Your task to perform on an android device: snooze an email in the gmail app Image 0: 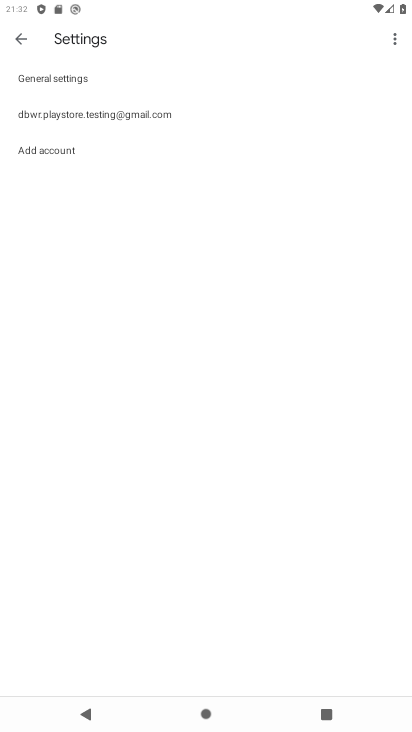
Step 0: press home button
Your task to perform on an android device: snooze an email in the gmail app Image 1: 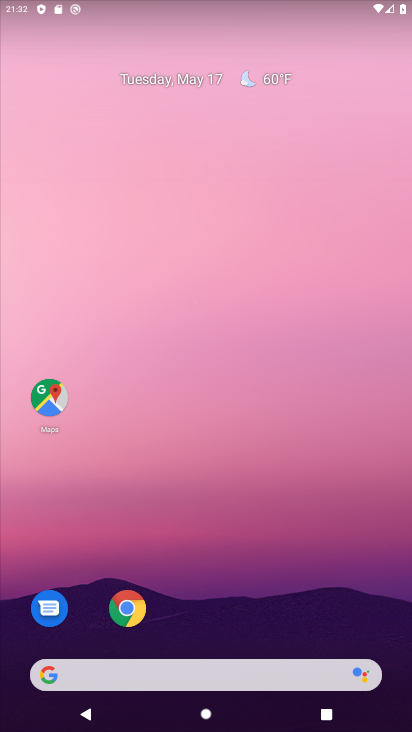
Step 1: drag from (224, 533) to (264, 17)
Your task to perform on an android device: snooze an email in the gmail app Image 2: 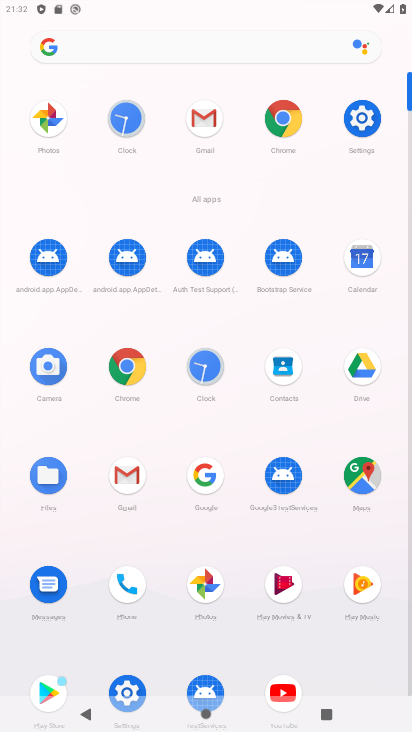
Step 2: click (125, 481)
Your task to perform on an android device: snooze an email in the gmail app Image 3: 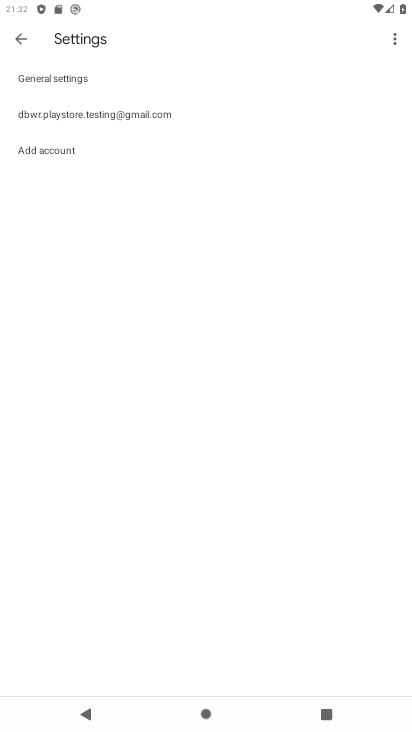
Step 3: click (16, 35)
Your task to perform on an android device: snooze an email in the gmail app Image 4: 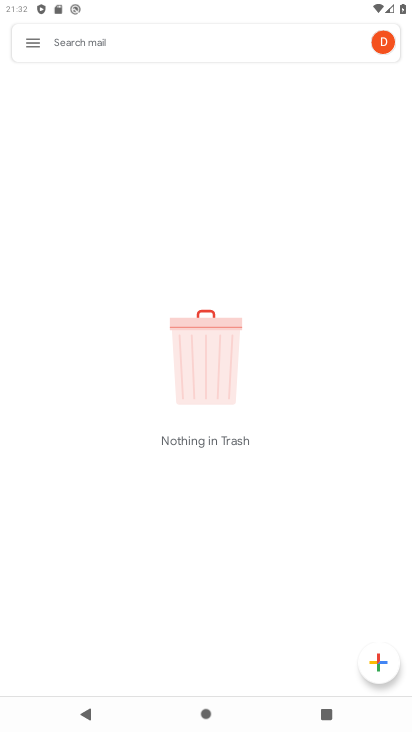
Step 4: click (30, 40)
Your task to perform on an android device: snooze an email in the gmail app Image 5: 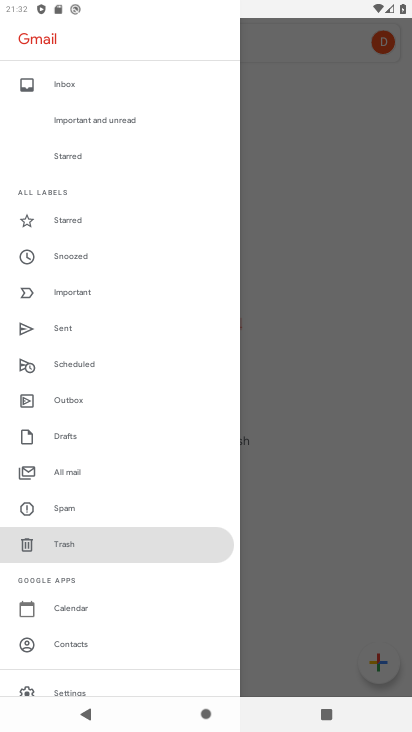
Step 5: click (70, 250)
Your task to perform on an android device: snooze an email in the gmail app Image 6: 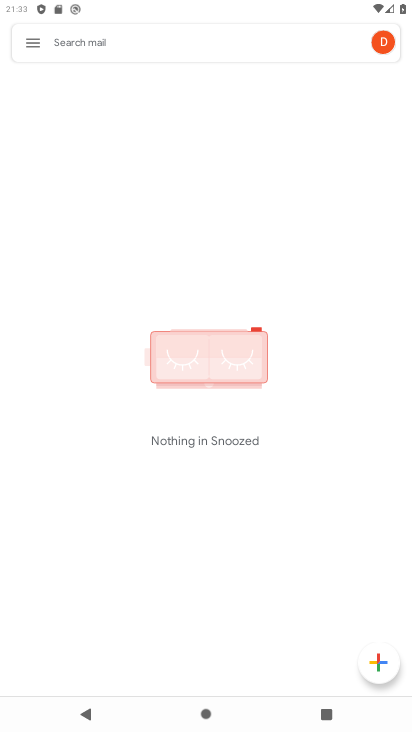
Step 6: click (23, 30)
Your task to perform on an android device: snooze an email in the gmail app Image 7: 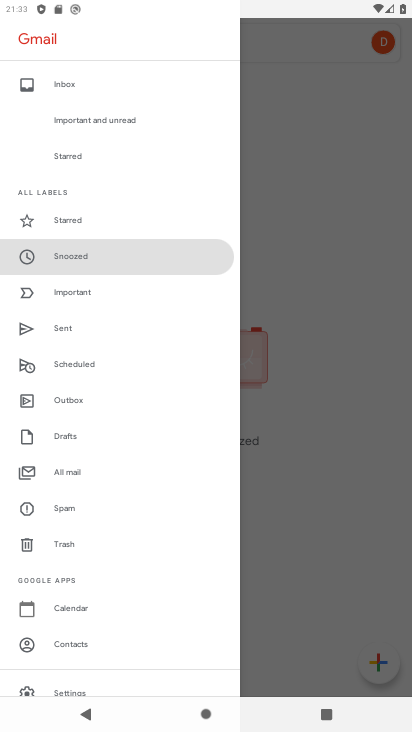
Step 7: click (117, 462)
Your task to perform on an android device: snooze an email in the gmail app Image 8: 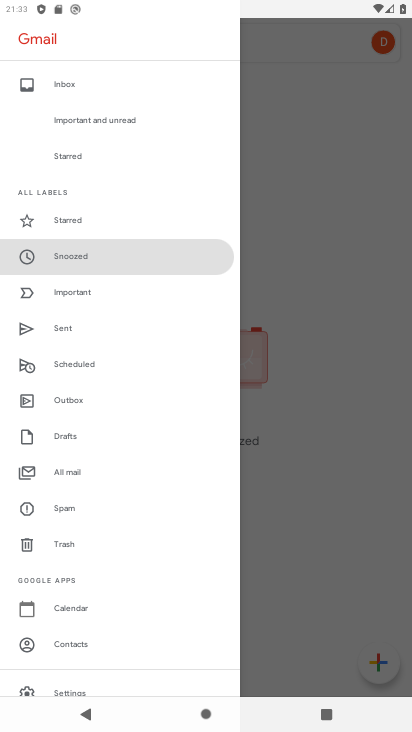
Step 8: click (77, 471)
Your task to perform on an android device: snooze an email in the gmail app Image 9: 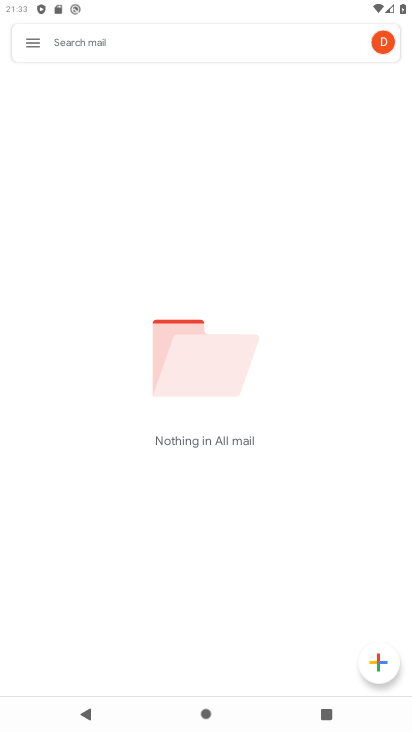
Step 9: task complete